Your task to perform on an android device: Open Amazon Image 0: 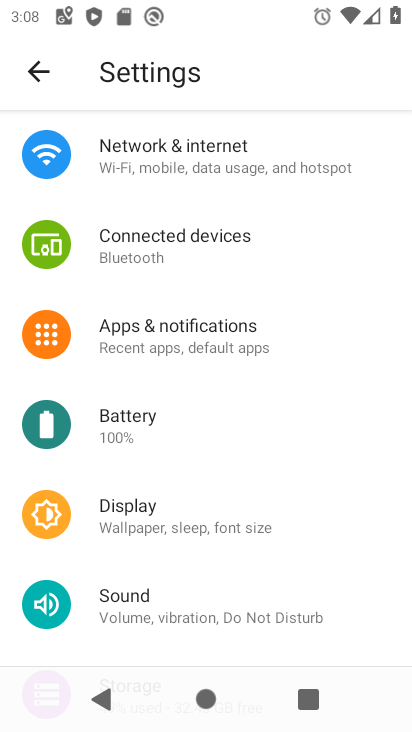
Step 0: press home button
Your task to perform on an android device: Open Amazon Image 1: 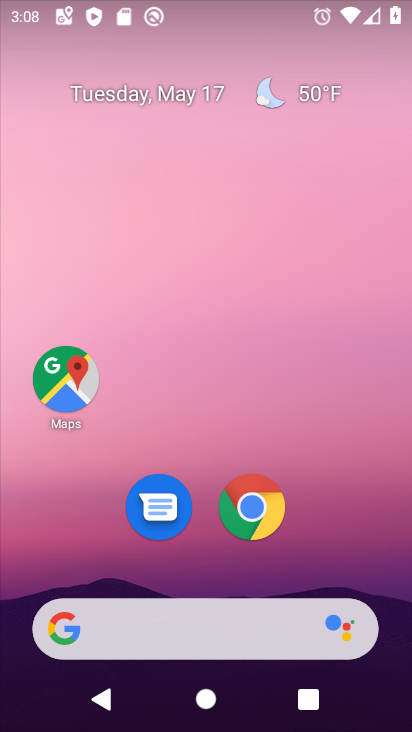
Step 1: click (270, 516)
Your task to perform on an android device: Open Amazon Image 2: 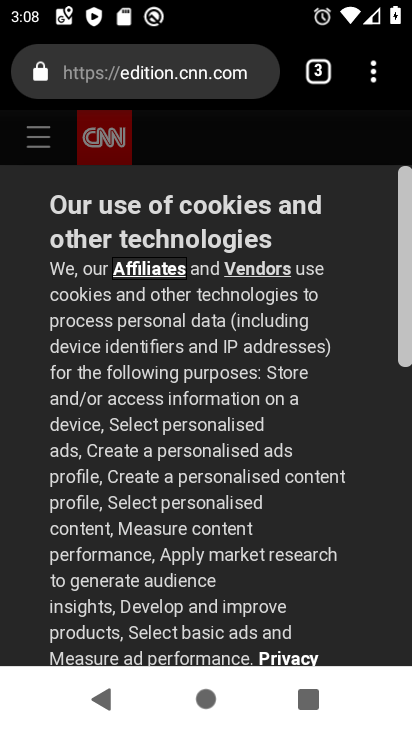
Step 2: click (324, 73)
Your task to perform on an android device: Open Amazon Image 3: 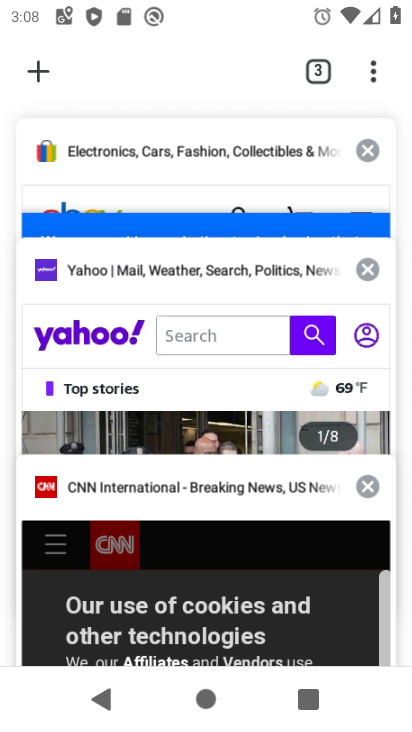
Step 3: click (38, 74)
Your task to perform on an android device: Open Amazon Image 4: 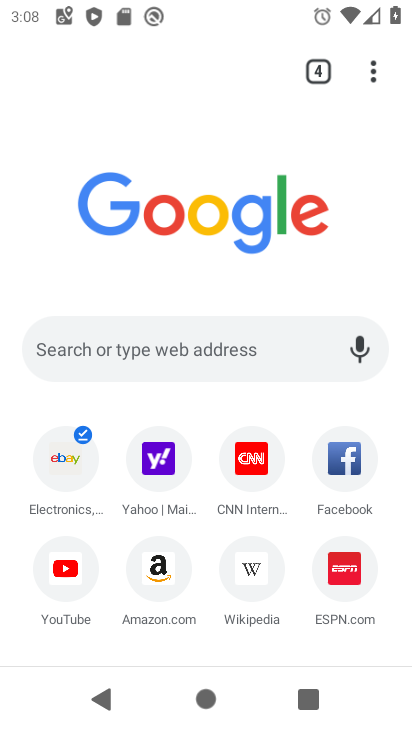
Step 4: click (165, 567)
Your task to perform on an android device: Open Amazon Image 5: 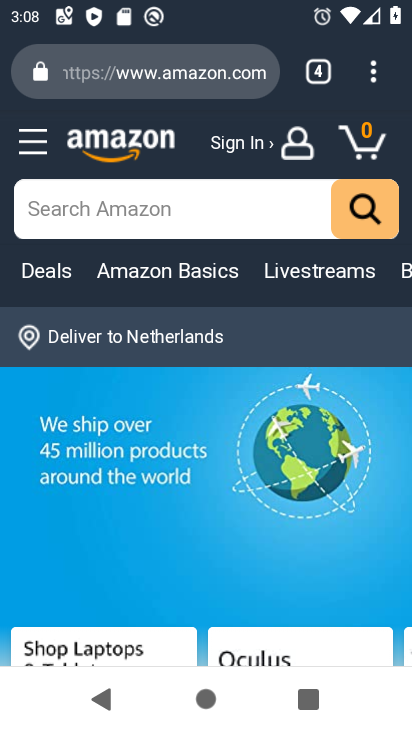
Step 5: task complete